Your task to perform on an android device: Add "razer deathadder" to the cart on costco, then select checkout. Image 0: 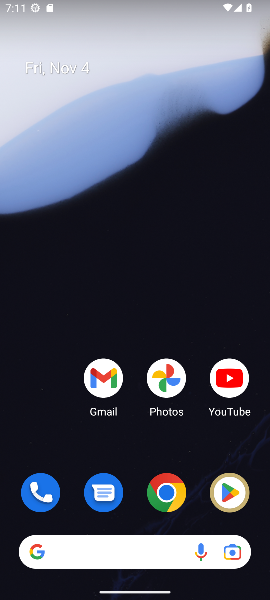
Step 0: drag from (141, 448) to (106, 6)
Your task to perform on an android device: Add "razer deathadder" to the cart on costco, then select checkout. Image 1: 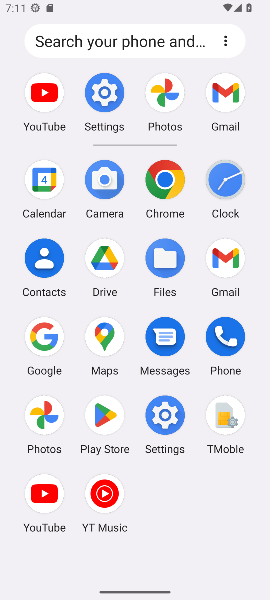
Step 1: click (163, 182)
Your task to perform on an android device: Add "razer deathadder" to the cart on costco, then select checkout. Image 2: 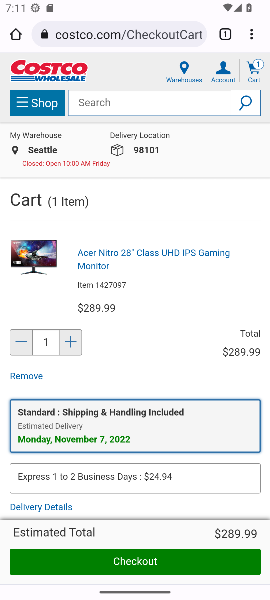
Step 2: click (126, 36)
Your task to perform on an android device: Add "razer deathadder" to the cart on costco, then select checkout. Image 3: 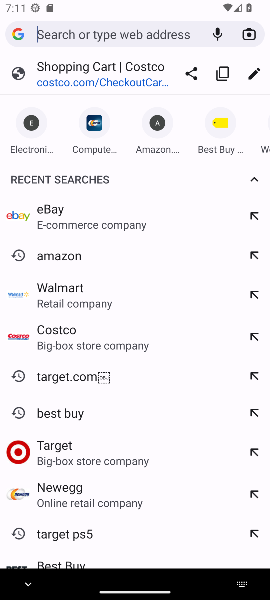
Step 3: type "costco.com"
Your task to perform on an android device: Add "razer deathadder" to the cart on costco, then select checkout. Image 4: 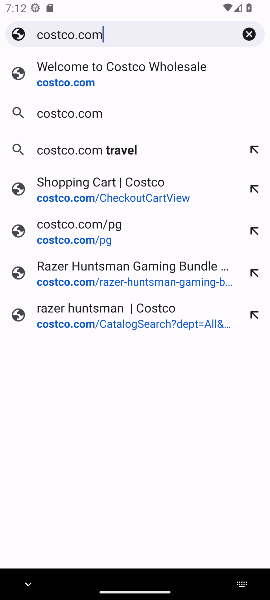
Step 4: press enter
Your task to perform on an android device: Add "razer deathadder" to the cart on costco, then select checkout. Image 5: 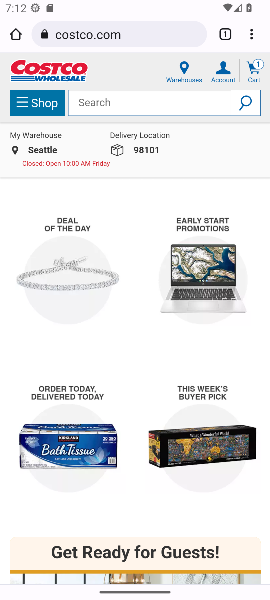
Step 5: click (173, 106)
Your task to perform on an android device: Add "razer deathadder" to the cart on costco, then select checkout. Image 6: 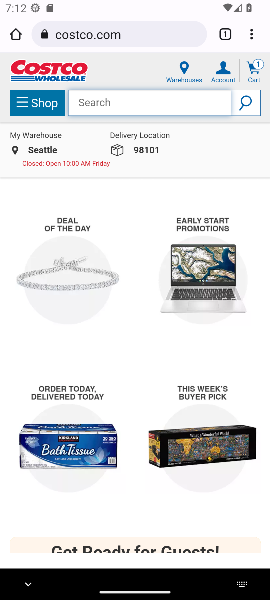
Step 6: type "razer deathadder"
Your task to perform on an android device: Add "razer deathadder" to the cart on costco, then select checkout. Image 7: 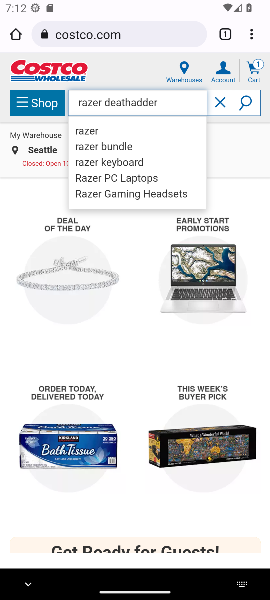
Step 7: press enter
Your task to perform on an android device: Add "razer deathadder" to the cart on costco, then select checkout. Image 8: 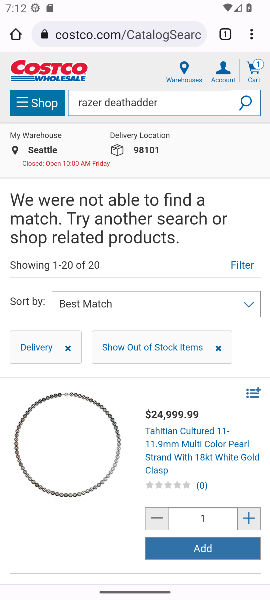
Step 8: task complete